Your task to perform on an android device: turn on priority inbox in the gmail app Image 0: 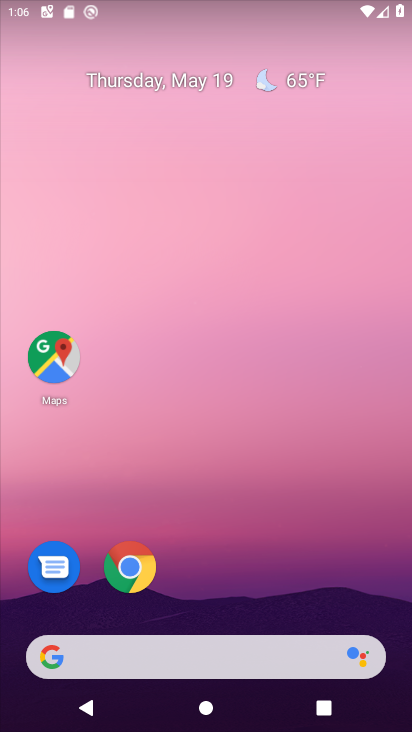
Step 0: drag from (276, 571) to (280, 141)
Your task to perform on an android device: turn on priority inbox in the gmail app Image 1: 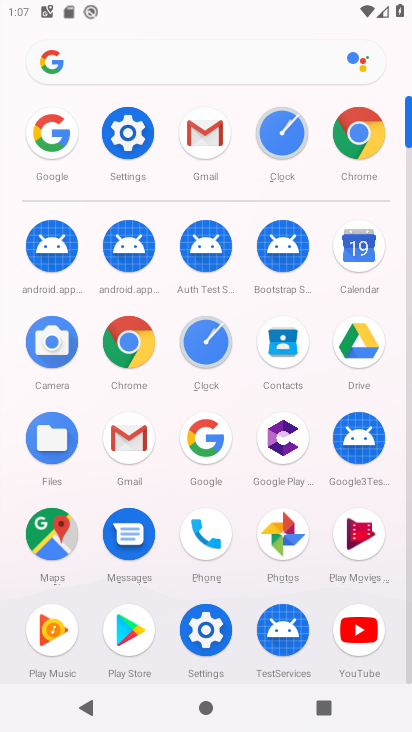
Step 1: click (199, 150)
Your task to perform on an android device: turn on priority inbox in the gmail app Image 2: 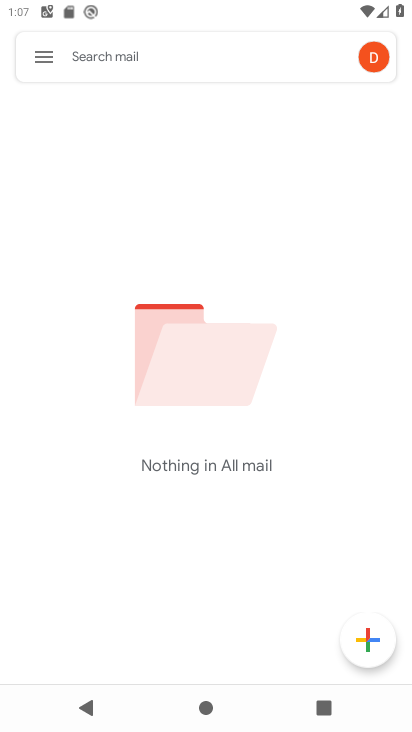
Step 2: click (39, 58)
Your task to perform on an android device: turn on priority inbox in the gmail app Image 3: 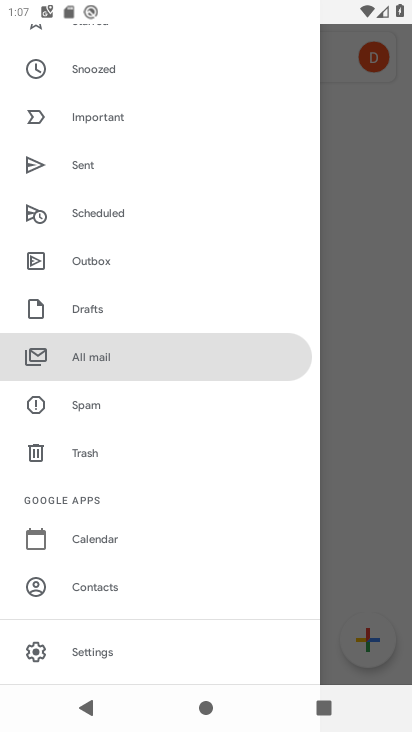
Step 3: drag from (142, 94) to (157, 534)
Your task to perform on an android device: turn on priority inbox in the gmail app Image 4: 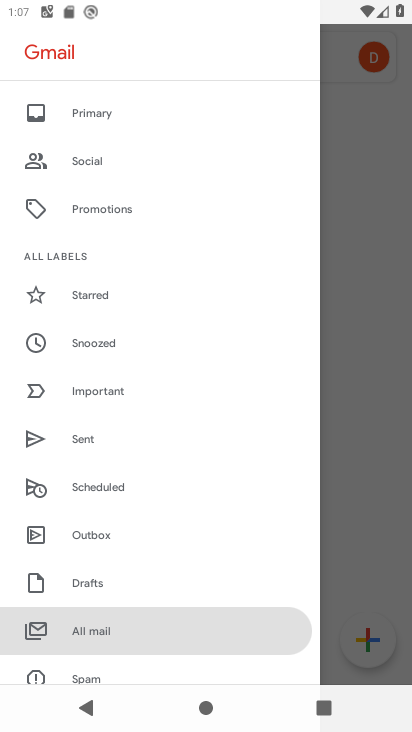
Step 4: drag from (200, 637) to (259, 162)
Your task to perform on an android device: turn on priority inbox in the gmail app Image 5: 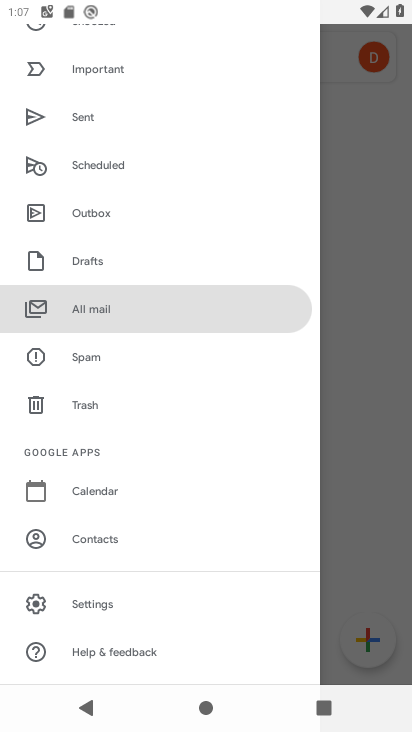
Step 5: click (151, 602)
Your task to perform on an android device: turn on priority inbox in the gmail app Image 6: 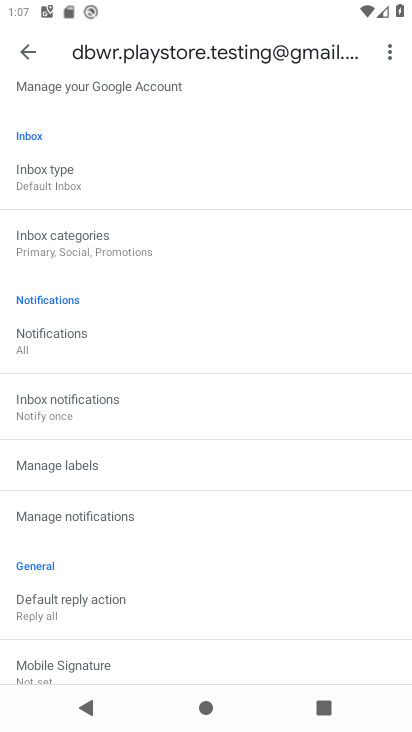
Step 6: task complete